Your task to perform on an android device: Open Yahoo.com Image 0: 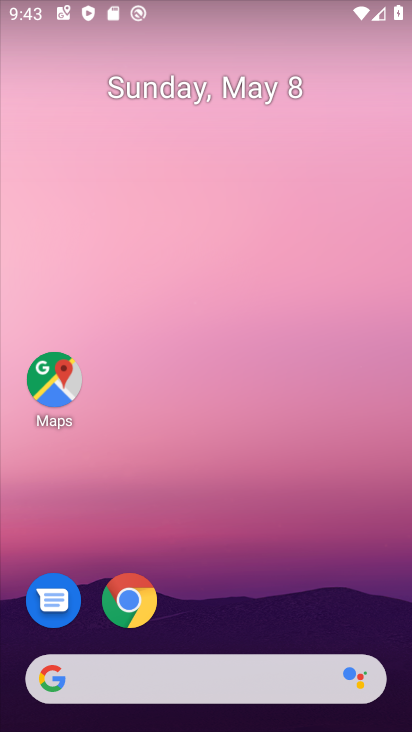
Step 0: click (129, 591)
Your task to perform on an android device: Open Yahoo.com Image 1: 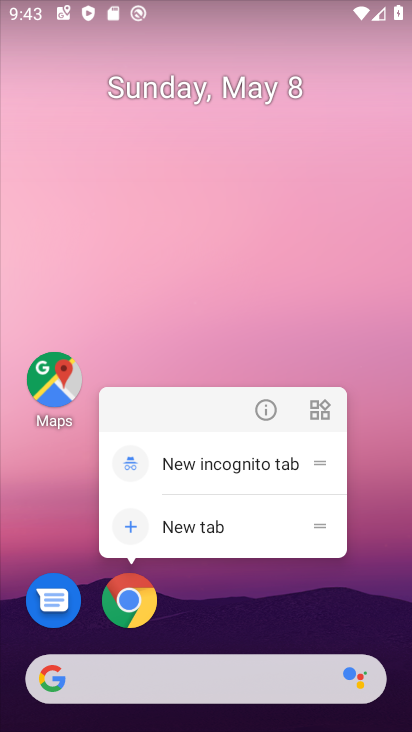
Step 1: click (138, 597)
Your task to perform on an android device: Open Yahoo.com Image 2: 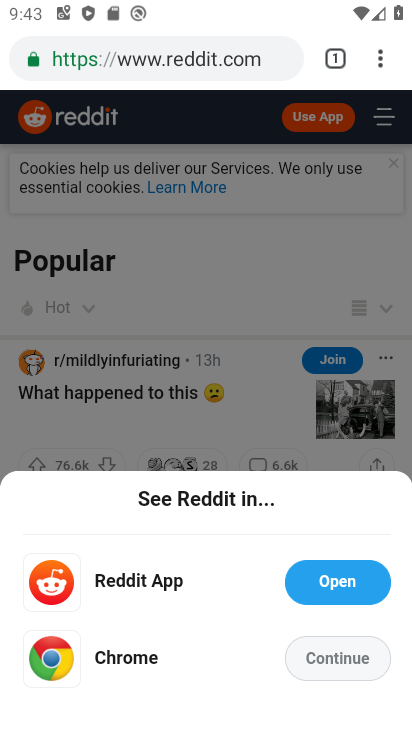
Step 2: click (197, 60)
Your task to perform on an android device: Open Yahoo.com Image 3: 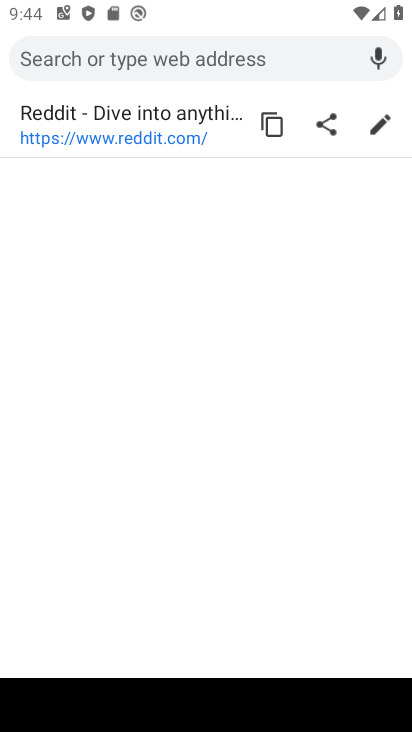
Step 3: type "yahoo.com"
Your task to perform on an android device: Open Yahoo.com Image 4: 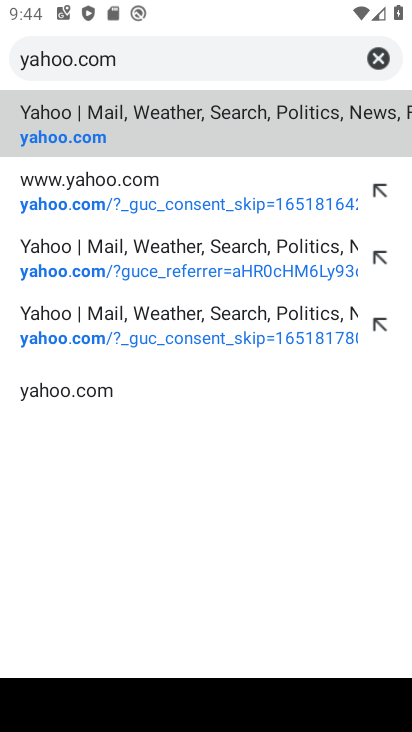
Step 4: click (78, 128)
Your task to perform on an android device: Open Yahoo.com Image 5: 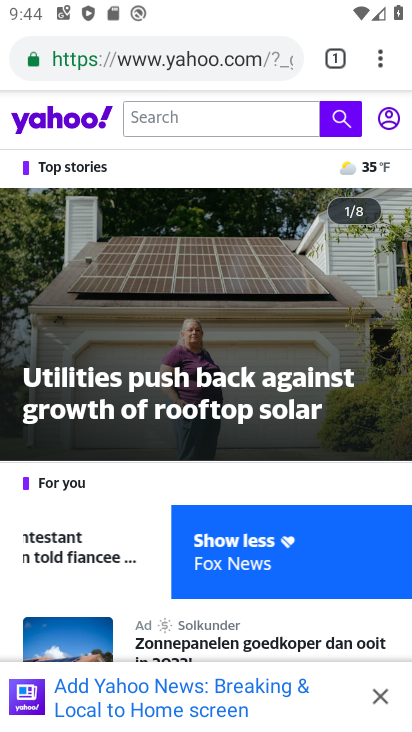
Step 5: task complete